Your task to perform on an android device: Open sound settings Image 0: 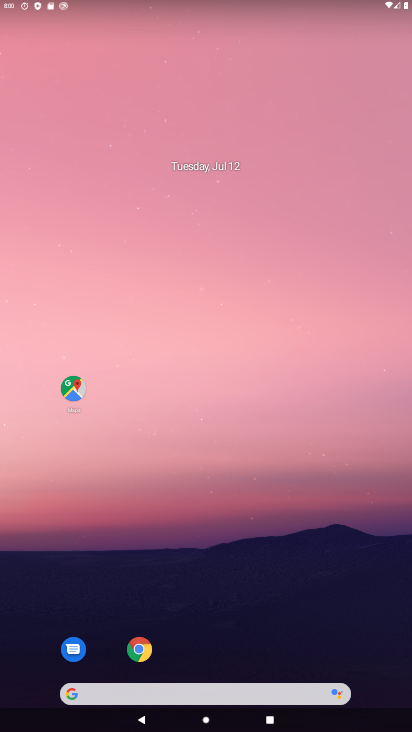
Step 0: drag from (262, 449) to (206, 206)
Your task to perform on an android device: Open sound settings Image 1: 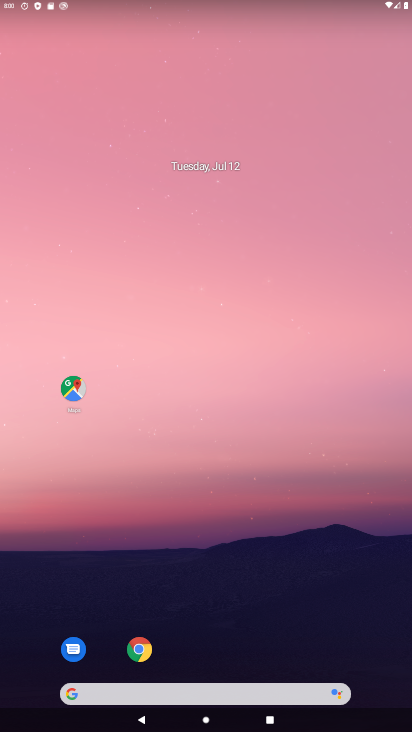
Step 1: drag from (290, 581) to (222, 167)
Your task to perform on an android device: Open sound settings Image 2: 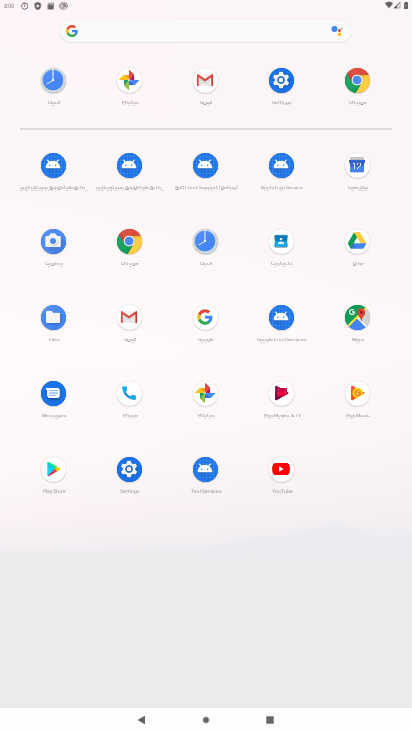
Step 2: click (284, 82)
Your task to perform on an android device: Open sound settings Image 3: 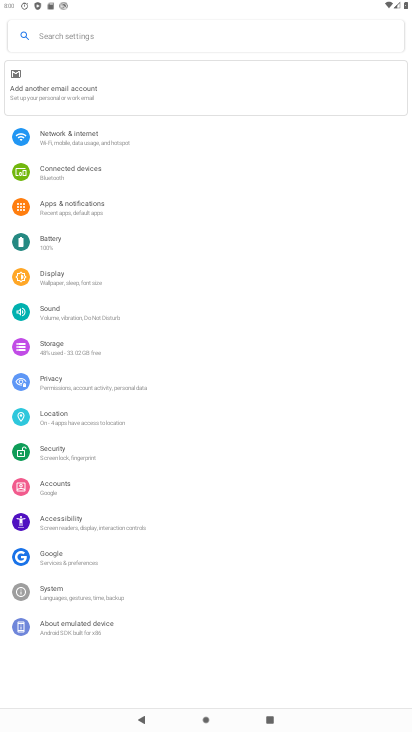
Step 3: click (68, 313)
Your task to perform on an android device: Open sound settings Image 4: 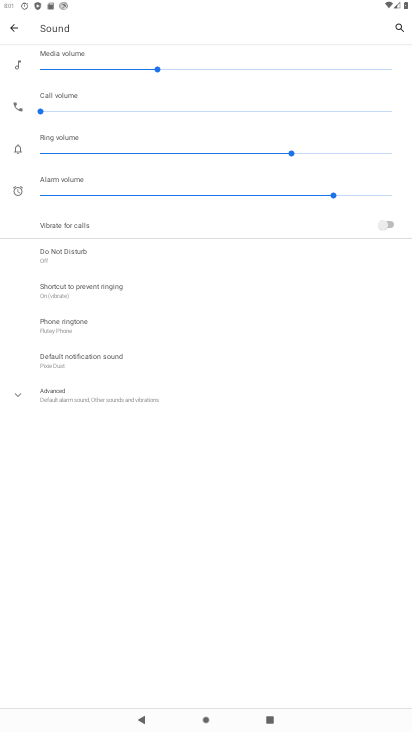
Step 4: task complete